Your task to perform on an android device: Show me the alarms in the clock app Image 0: 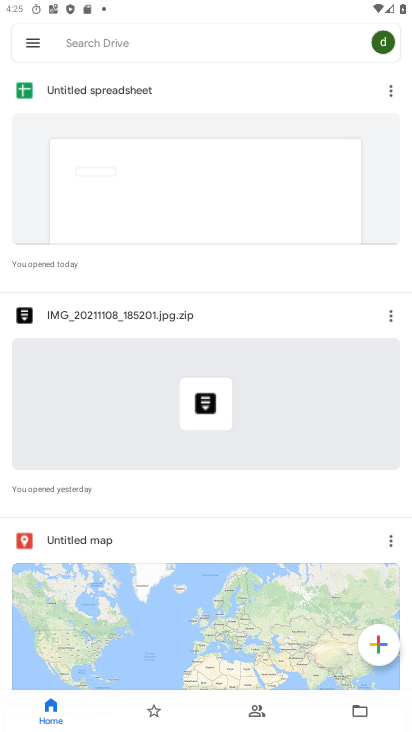
Step 0: press home button
Your task to perform on an android device: Show me the alarms in the clock app Image 1: 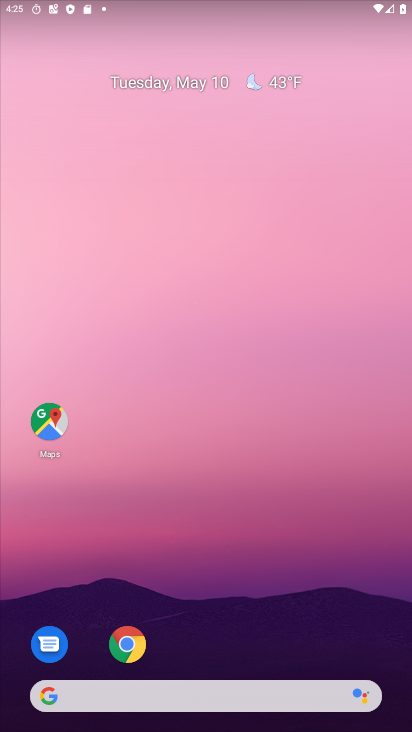
Step 1: drag from (155, 667) to (172, 355)
Your task to perform on an android device: Show me the alarms in the clock app Image 2: 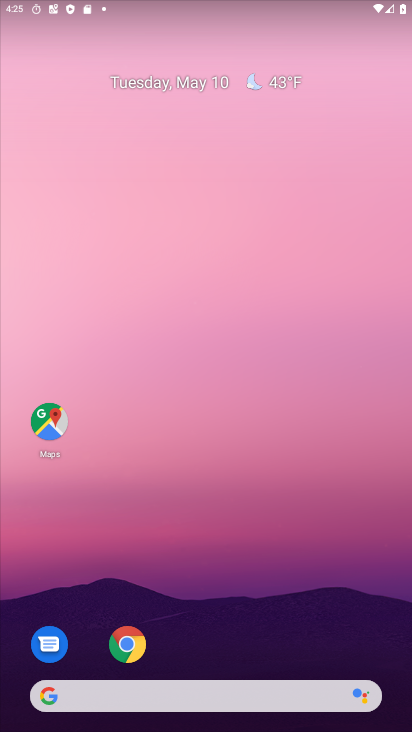
Step 2: drag from (260, 613) to (228, 320)
Your task to perform on an android device: Show me the alarms in the clock app Image 3: 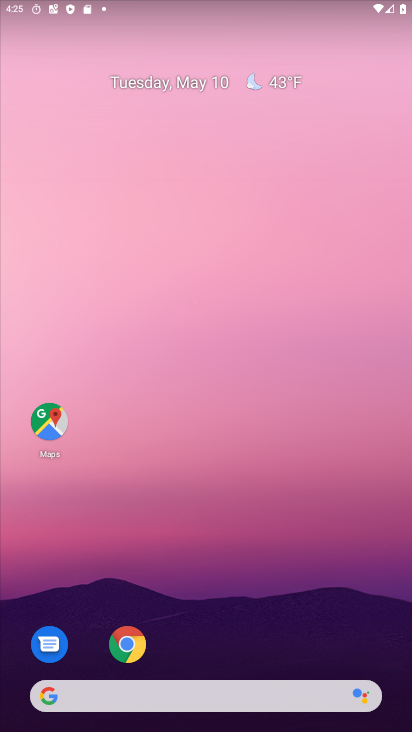
Step 3: drag from (167, 675) to (165, 248)
Your task to perform on an android device: Show me the alarms in the clock app Image 4: 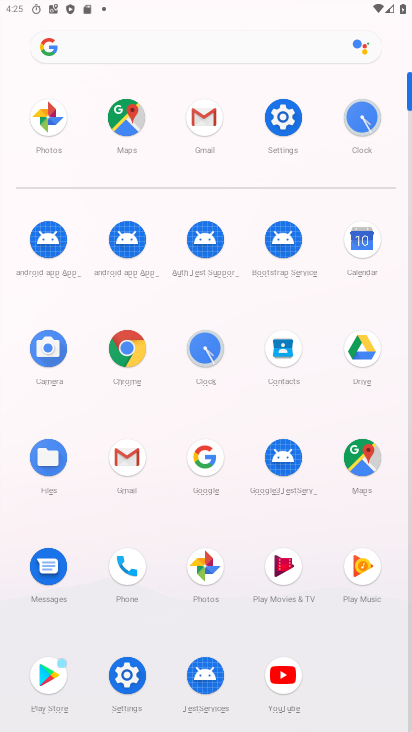
Step 4: click (202, 339)
Your task to perform on an android device: Show me the alarms in the clock app Image 5: 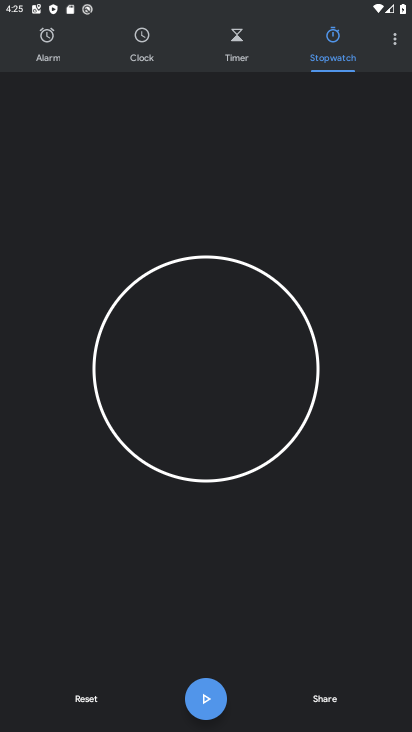
Step 5: click (39, 55)
Your task to perform on an android device: Show me the alarms in the clock app Image 6: 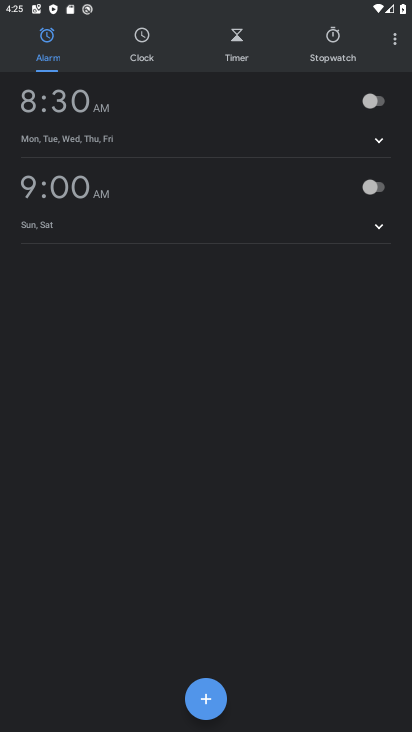
Step 6: task complete